Your task to perform on an android device: What is the news today? Image 0: 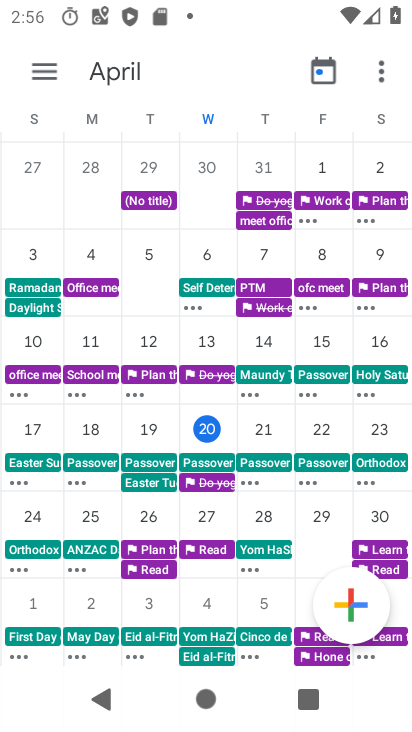
Step 0: press home button
Your task to perform on an android device: What is the news today? Image 1: 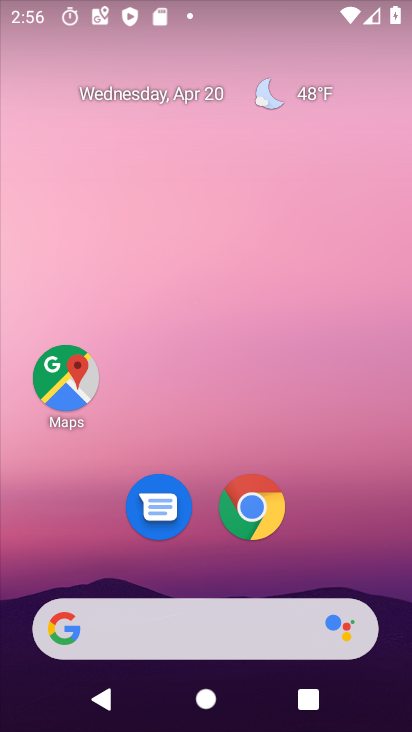
Step 1: drag from (198, 604) to (201, 117)
Your task to perform on an android device: What is the news today? Image 2: 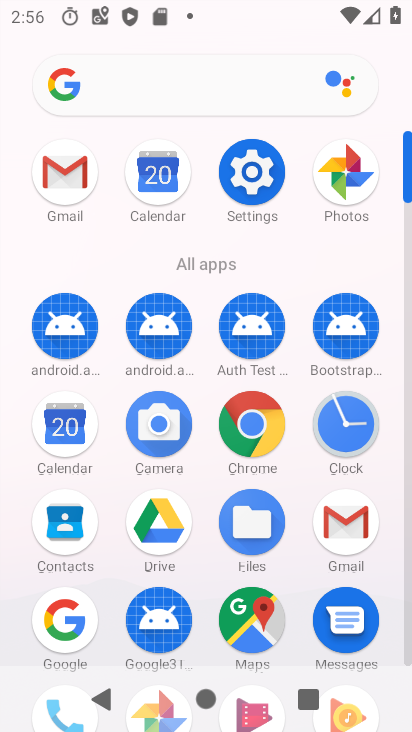
Step 2: click (83, 621)
Your task to perform on an android device: What is the news today? Image 3: 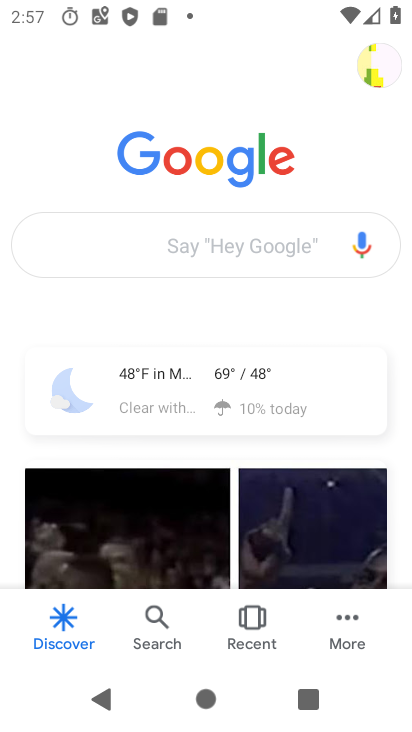
Step 3: task complete